Your task to perform on an android device: turn off translation in the chrome app Image 0: 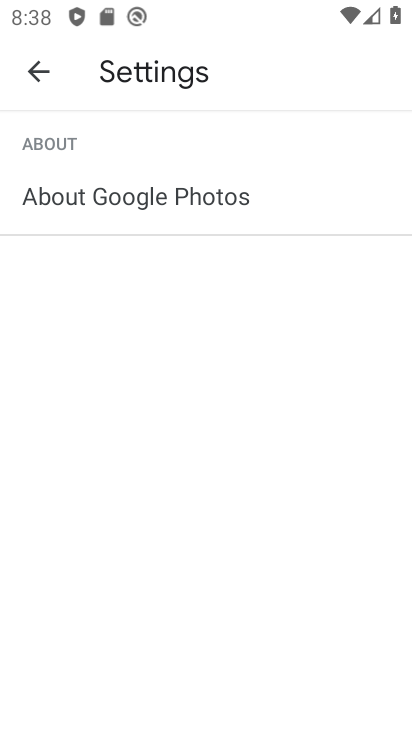
Step 0: press home button
Your task to perform on an android device: turn off translation in the chrome app Image 1: 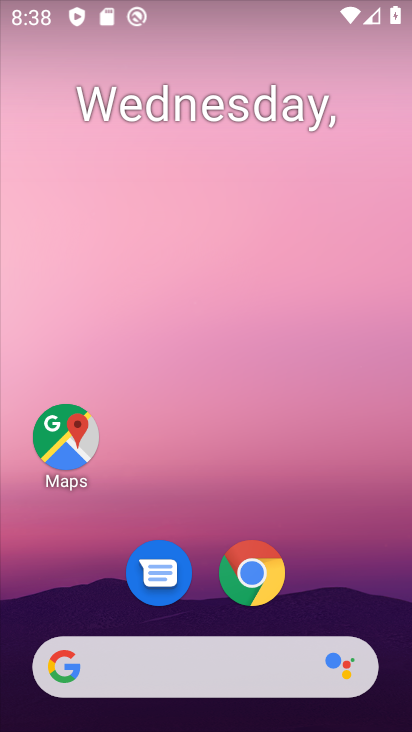
Step 1: click (236, 564)
Your task to perform on an android device: turn off translation in the chrome app Image 2: 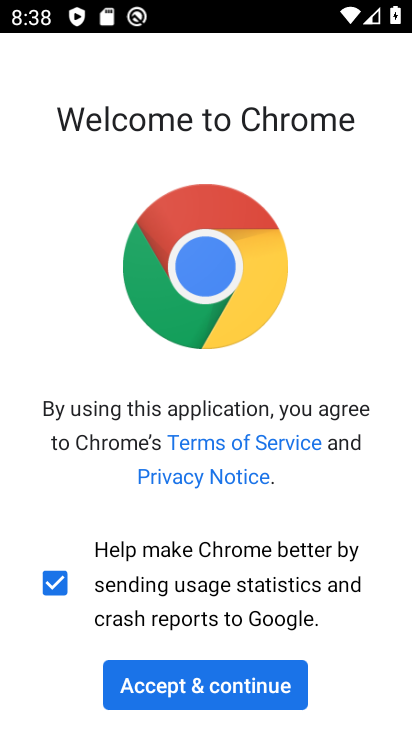
Step 2: click (227, 680)
Your task to perform on an android device: turn off translation in the chrome app Image 3: 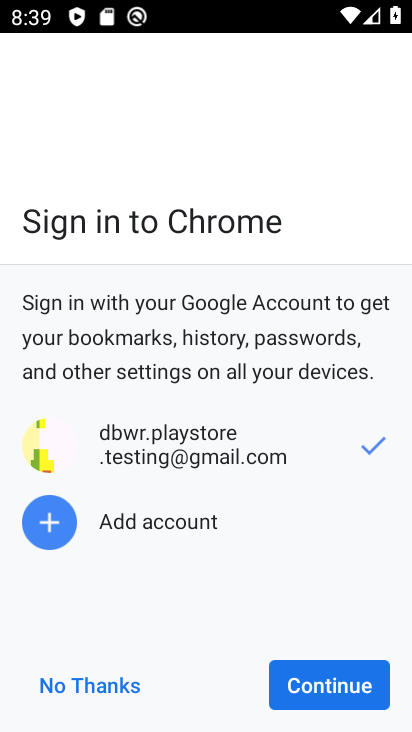
Step 3: click (306, 692)
Your task to perform on an android device: turn off translation in the chrome app Image 4: 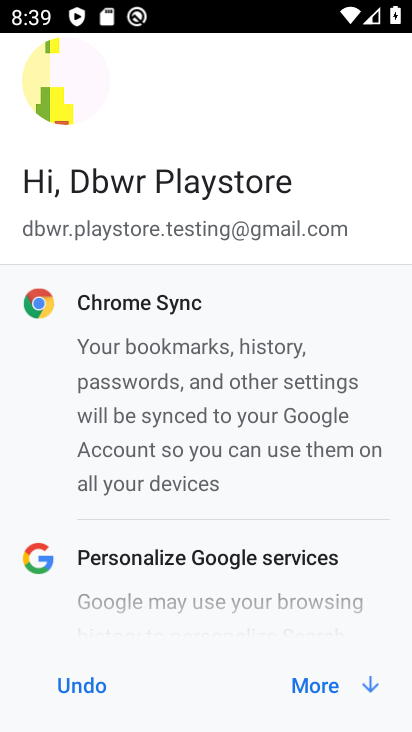
Step 4: click (310, 681)
Your task to perform on an android device: turn off translation in the chrome app Image 5: 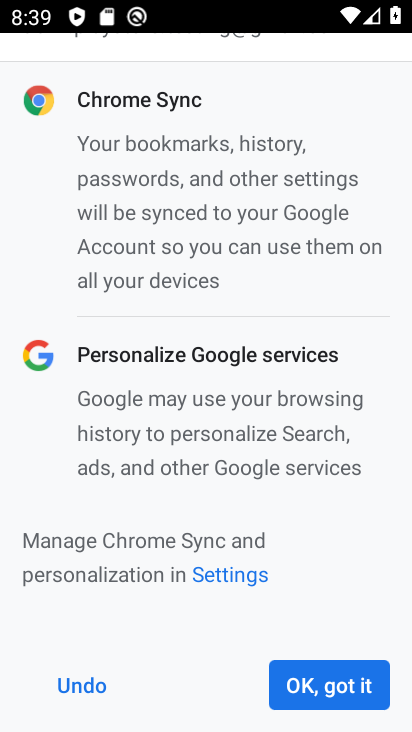
Step 5: click (310, 681)
Your task to perform on an android device: turn off translation in the chrome app Image 6: 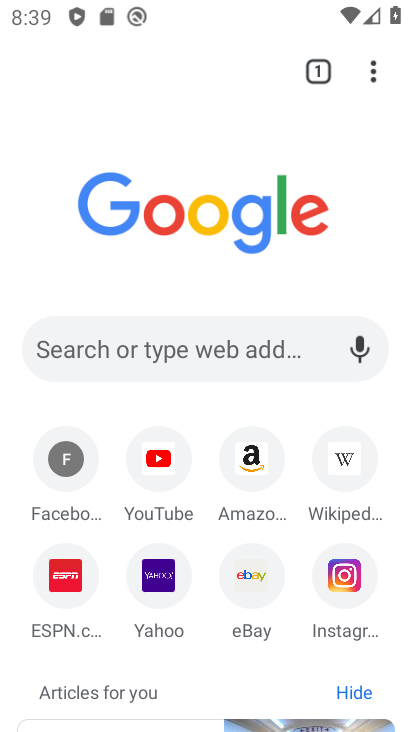
Step 6: click (368, 70)
Your task to perform on an android device: turn off translation in the chrome app Image 7: 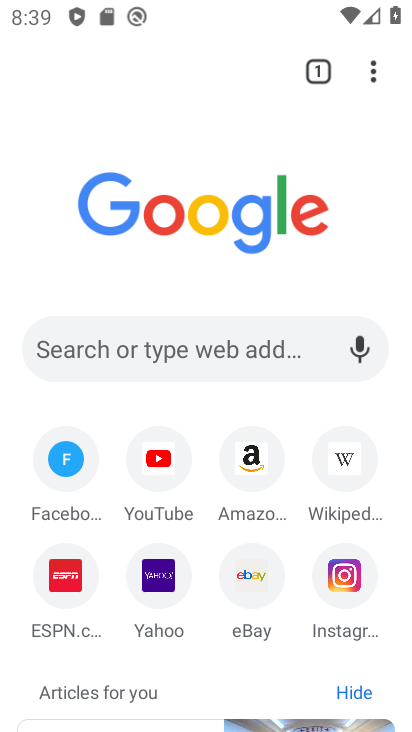
Step 7: click (368, 70)
Your task to perform on an android device: turn off translation in the chrome app Image 8: 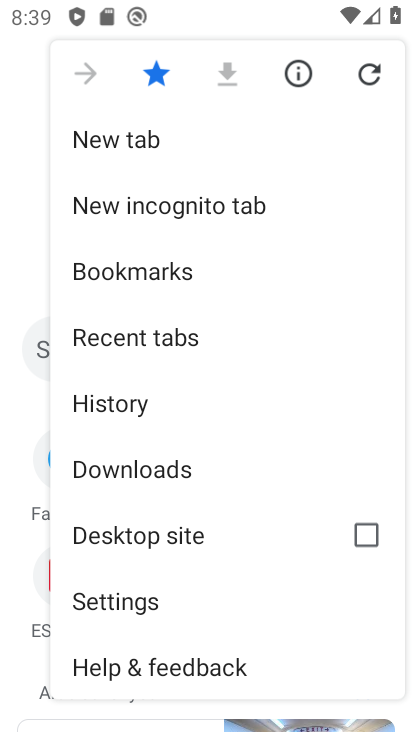
Step 8: click (128, 596)
Your task to perform on an android device: turn off translation in the chrome app Image 9: 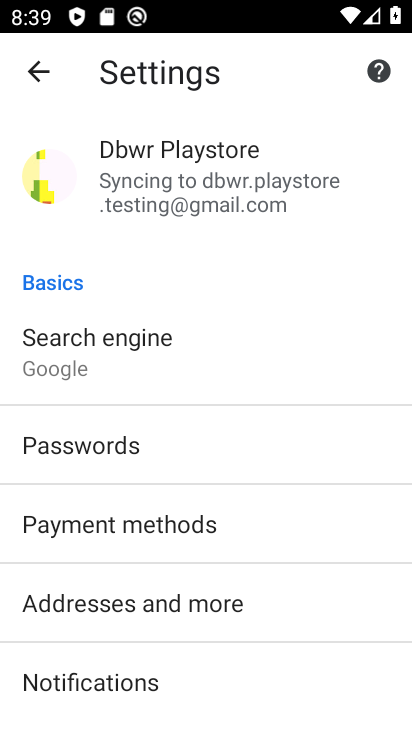
Step 9: drag from (302, 512) to (318, 190)
Your task to perform on an android device: turn off translation in the chrome app Image 10: 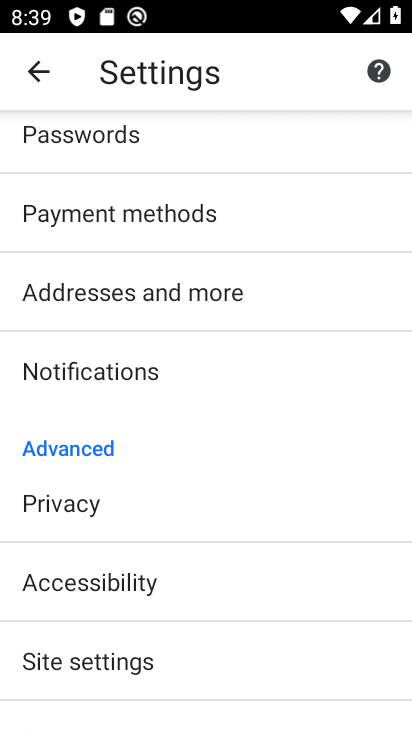
Step 10: drag from (268, 671) to (301, 356)
Your task to perform on an android device: turn off translation in the chrome app Image 11: 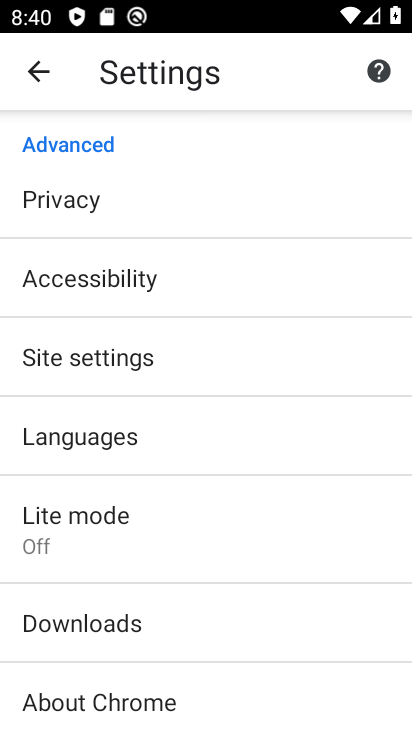
Step 11: click (81, 437)
Your task to perform on an android device: turn off translation in the chrome app Image 12: 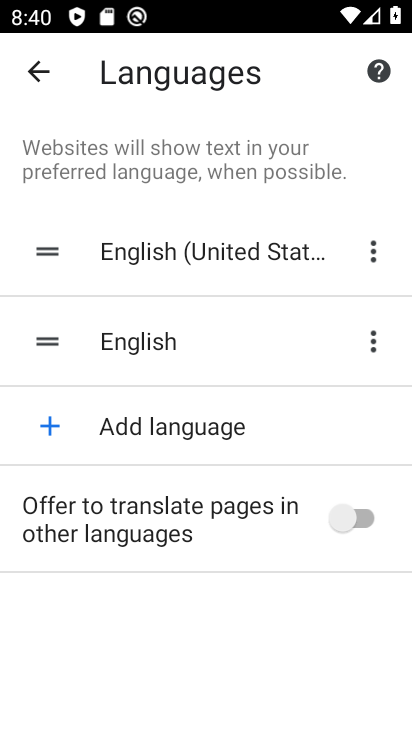
Step 12: task complete